Your task to perform on an android device: toggle data saver in the chrome app Image 0: 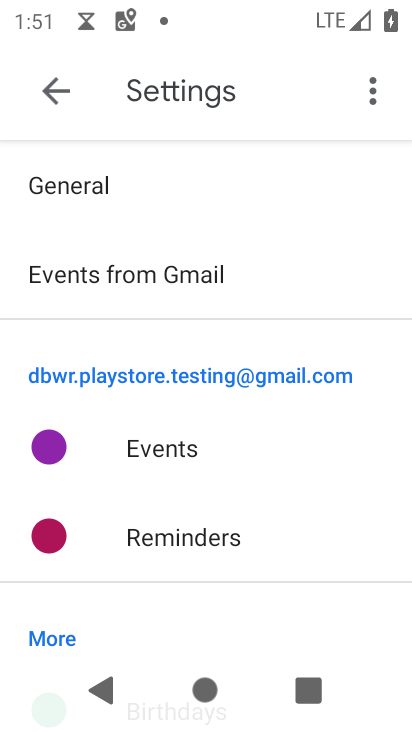
Step 0: press home button
Your task to perform on an android device: toggle data saver in the chrome app Image 1: 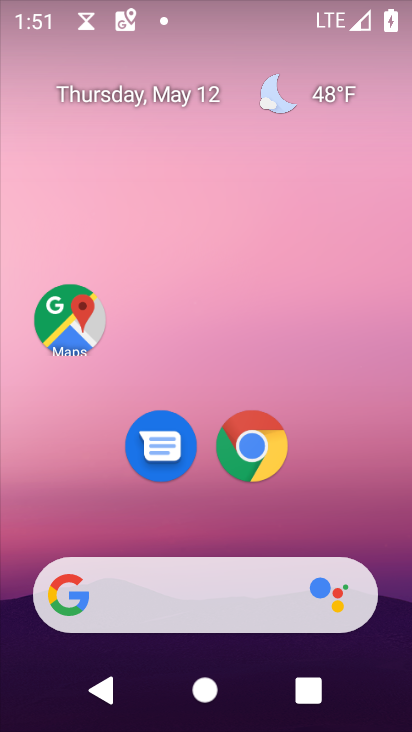
Step 1: click (257, 451)
Your task to perform on an android device: toggle data saver in the chrome app Image 2: 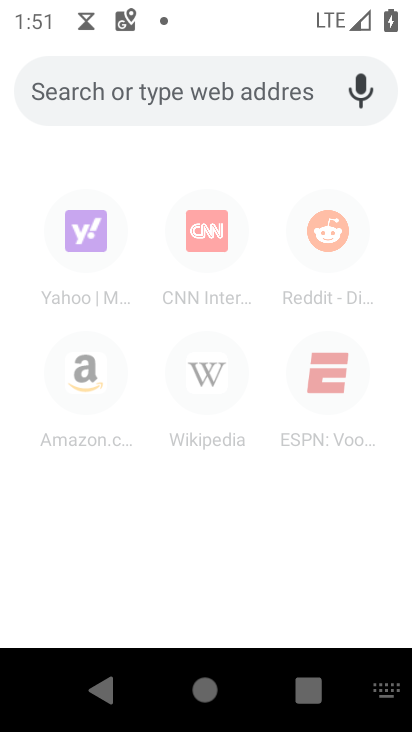
Step 2: press back button
Your task to perform on an android device: toggle data saver in the chrome app Image 3: 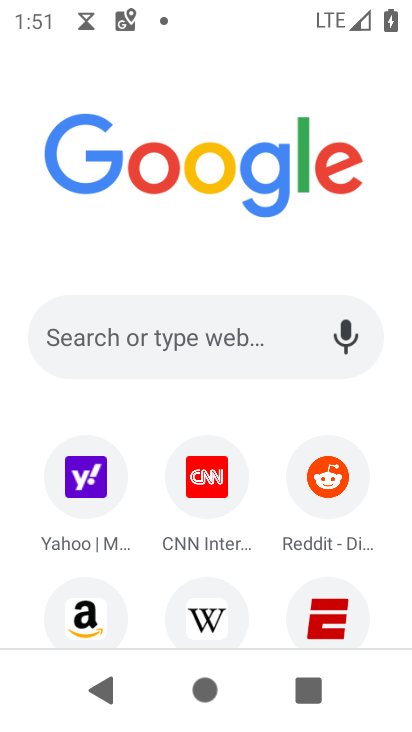
Step 3: drag from (270, 609) to (327, 268)
Your task to perform on an android device: toggle data saver in the chrome app Image 4: 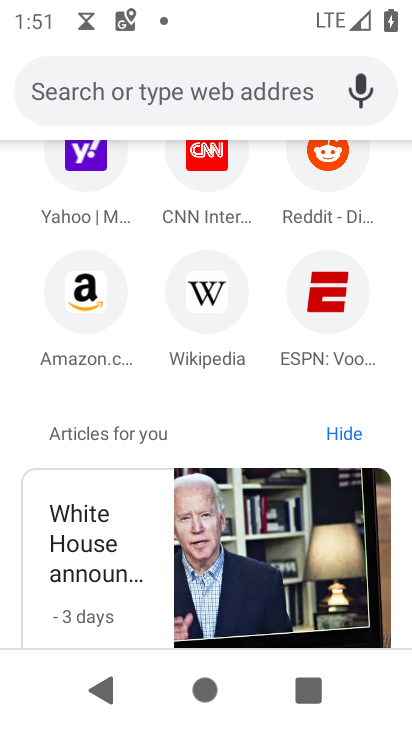
Step 4: press home button
Your task to perform on an android device: toggle data saver in the chrome app Image 5: 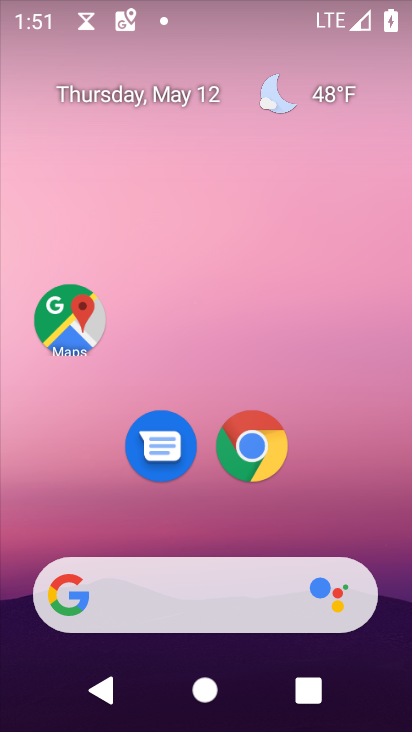
Step 5: click (261, 446)
Your task to perform on an android device: toggle data saver in the chrome app Image 6: 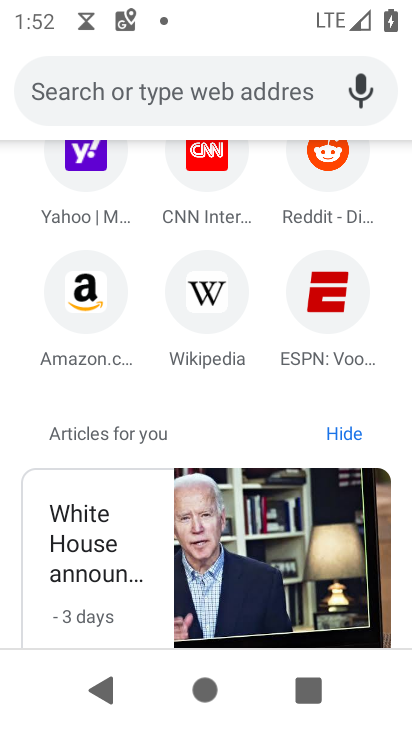
Step 6: drag from (301, 297) to (284, 578)
Your task to perform on an android device: toggle data saver in the chrome app Image 7: 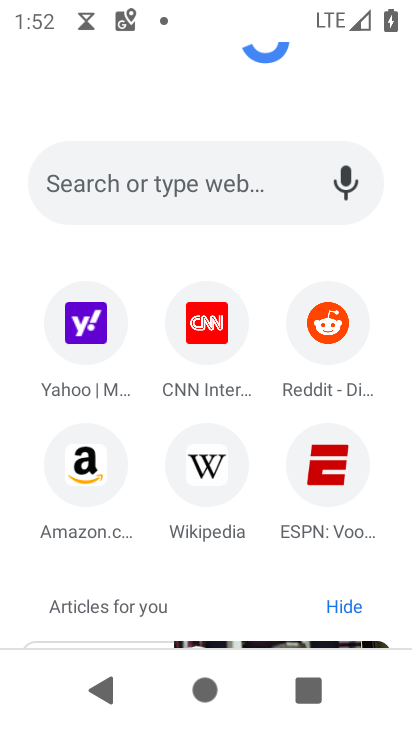
Step 7: drag from (353, 127) to (292, 590)
Your task to perform on an android device: toggle data saver in the chrome app Image 8: 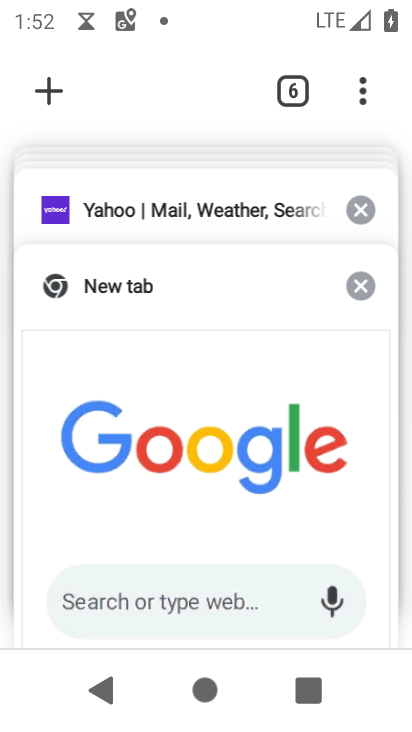
Step 8: click (370, 91)
Your task to perform on an android device: toggle data saver in the chrome app Image 9: 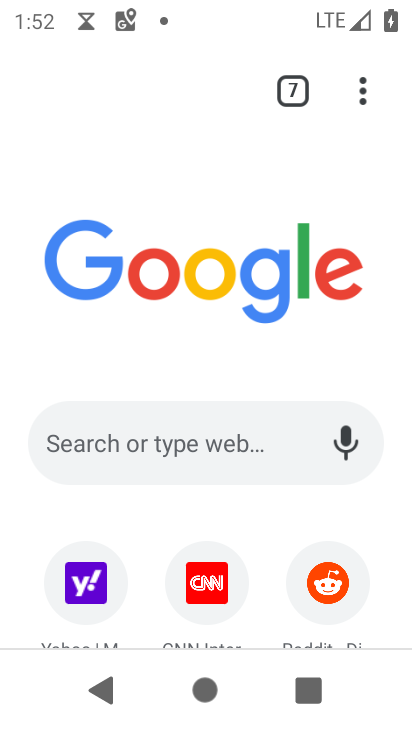
Step 9: click (361, 92)
Your task to perform on an android device: toggle data saver in the chrome app Image 10: 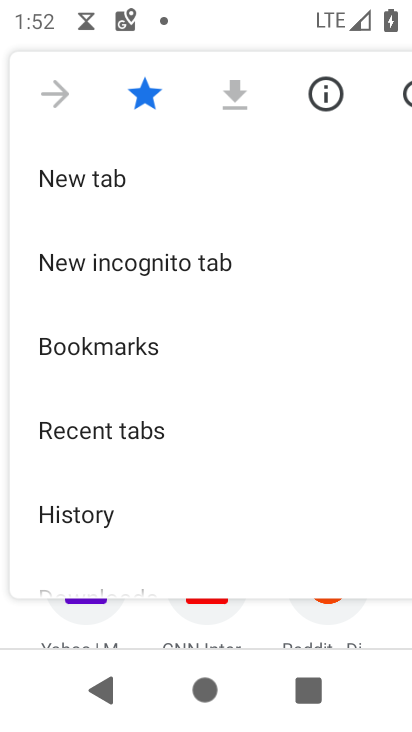
Step 10: drag from (249, 513) to (273, 169)
Your task to perform on an android device: toggle data saver in the chrome app Image 11: 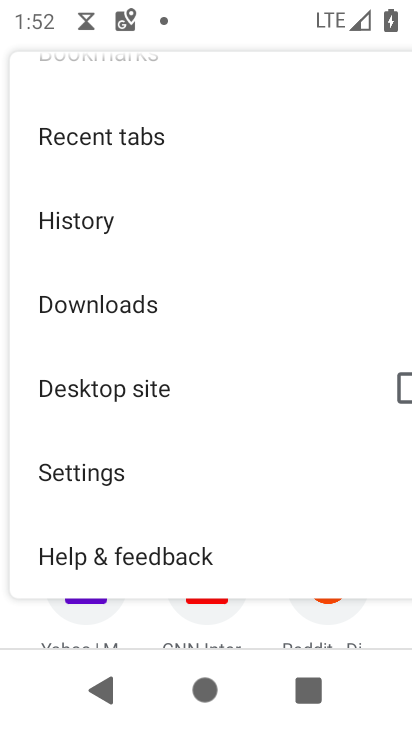
Step 11: click (97, 462)
Your task to perform on an android device: toggle data saver in the chrome app Image 12: 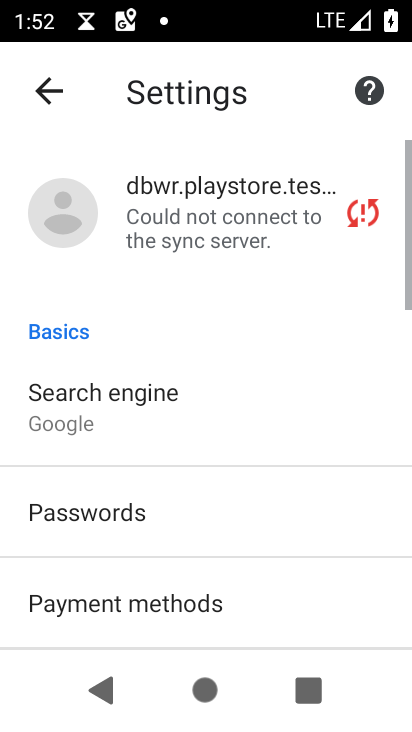
Step 12: drag from (255, 580) to (303, 188)
Your task to perform on an android device: toggle data saver in the chrome app Image 13: 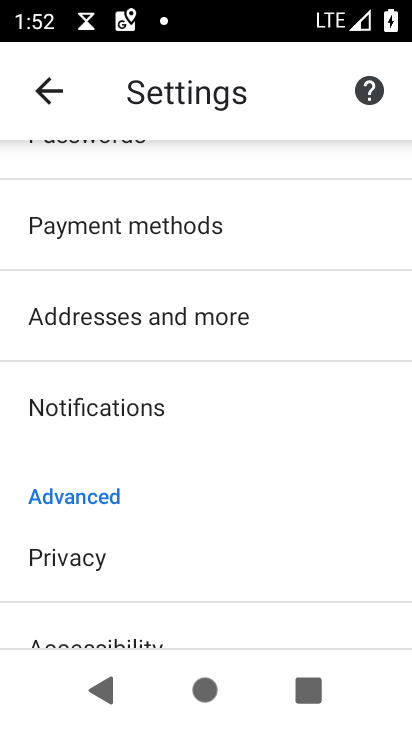
Step 13: drag from (259, 540) to (262, 231)
Your task to perform on an android device: toggle data saver in the chrome app Image 14: 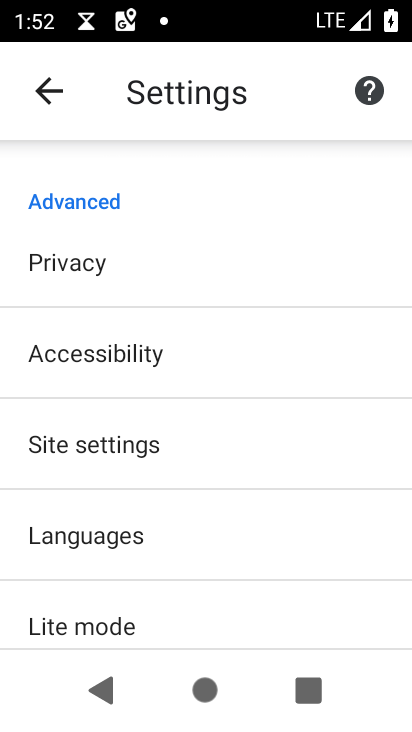
Step 14: click (171, 607)
Your task to perform on an android device: toggle data saver in the chrome app Image 15: 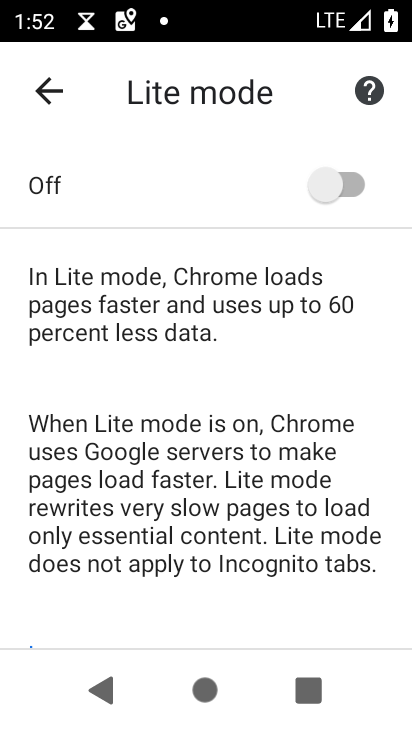
Step 15: click (348, 181)
Your task to perform on an android device: toggle data saver in the chrome app Image 16: 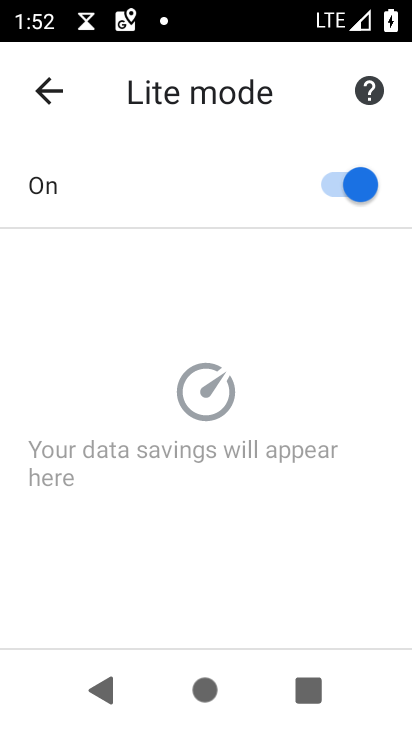
Step 16: task complete